Your task to perform on an android device: See recent photos Image 0: 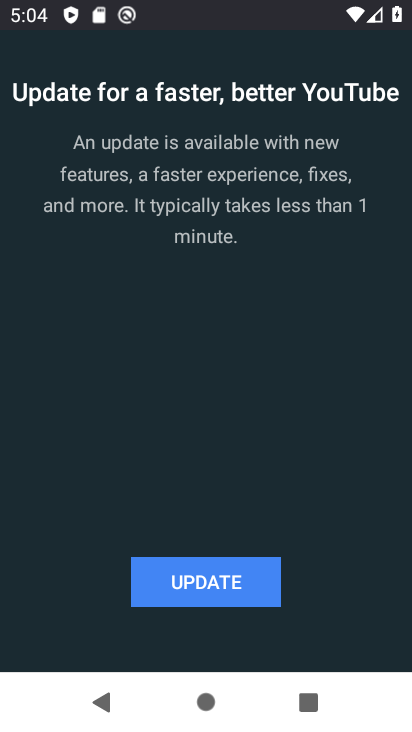
Step 0: press home button
Your task to perform on an android device: See recent photos Image 1: 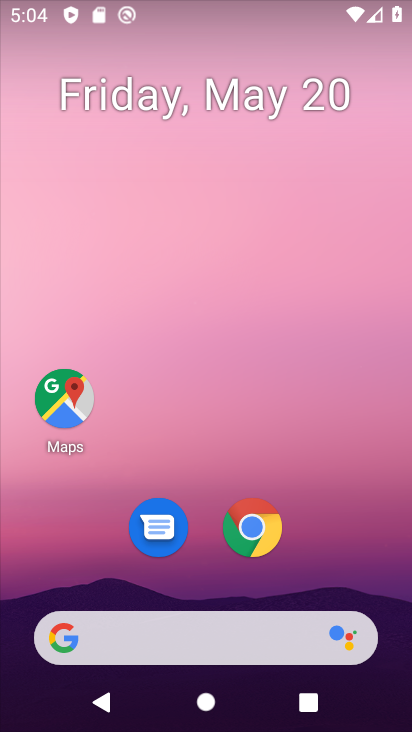
Step 1: drag from (252, 618) to (404, 598)
Your task to perform on an android device: See recent photos Image 2: 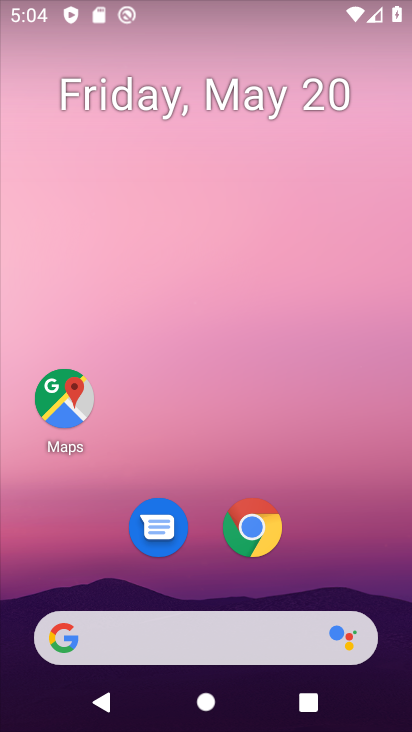
Step 2: drag from (258, 578) to (300, 2)
Your task to perform on an android device: See recent photos Image 3: 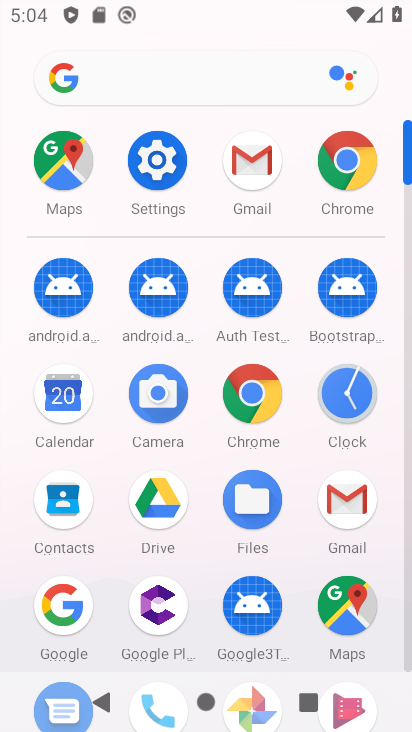
Step 3: drag from (301, 581) to (287, 335)
Your task to perform on an android device: See recent photos Image 4: 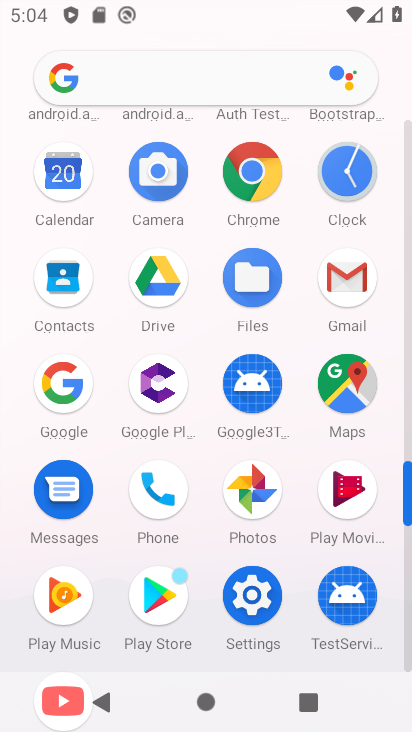
Step 4: click (261, 499)
Your task to perform on an android device: See recent photos Image 5: 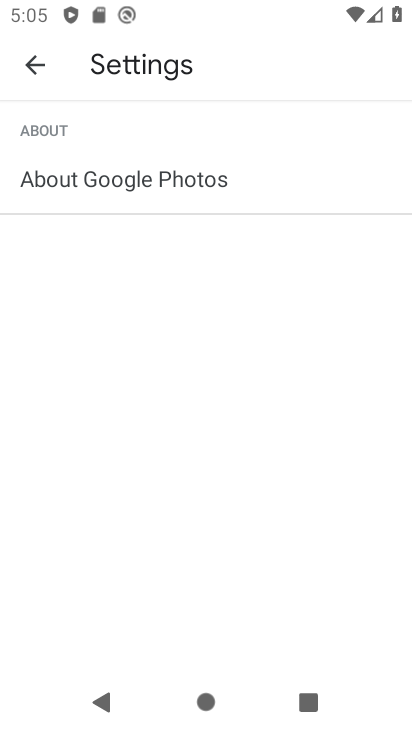
Step 5: task complete